Your task to perform on an android device: empty trash in google photos Image 0: 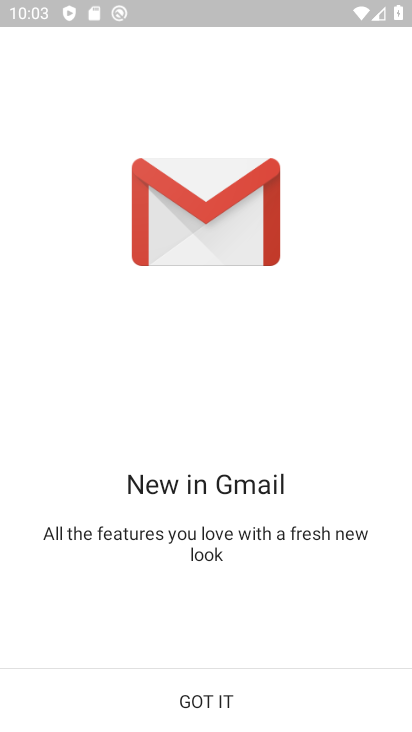
Step 0: click (312, 701)
Your task to perform on an android device: empty trash in google photos Image 1: 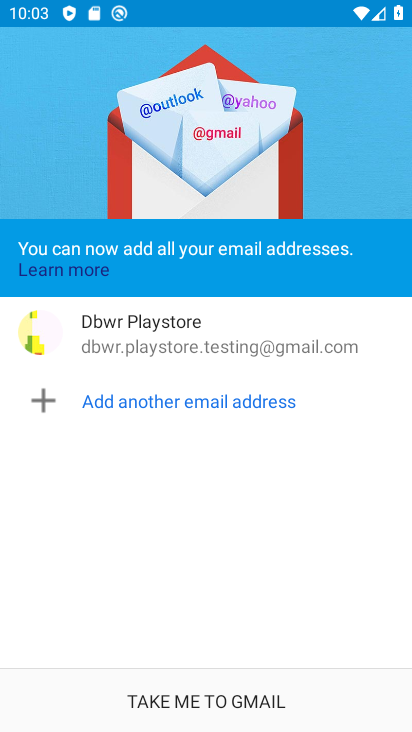
Step 1: click (195, 704)
Your task to perform on an android device: empty trash in google photos Image 2: 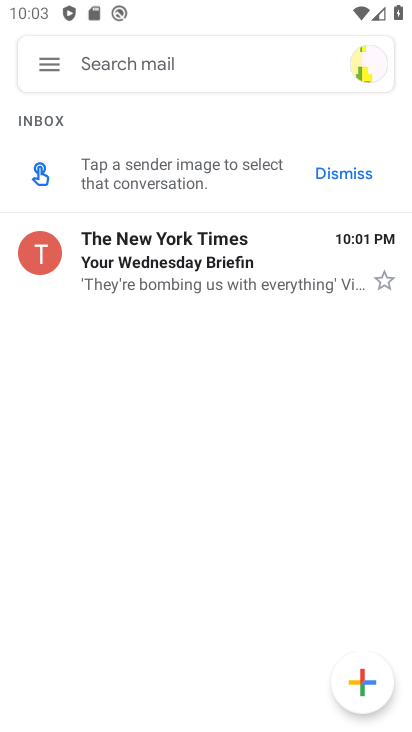
Step 2: press back button
Your task to perform on an android device: empty trash in google photos Image 3: 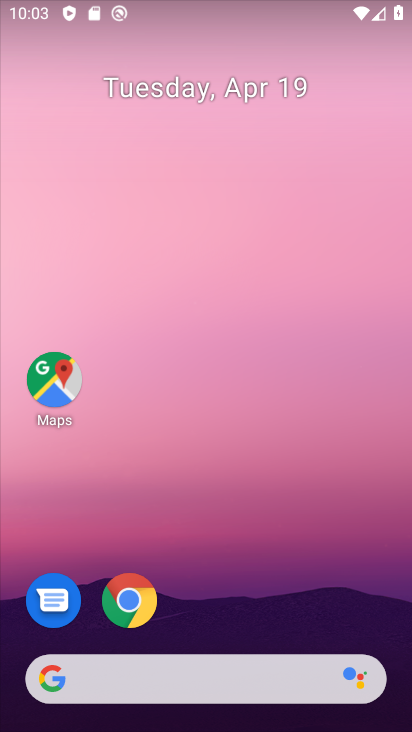
Step 3: drag from (250, 629) to (261, 0)
Your task to perform on an android device: empty trash in google photos Image 4: 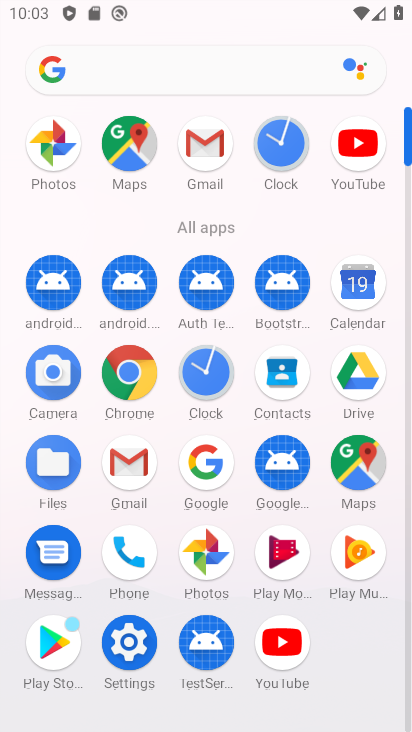
Step 4: click (187, 556)
Your task to perform on an android device: empty trash in google photos Image 5: 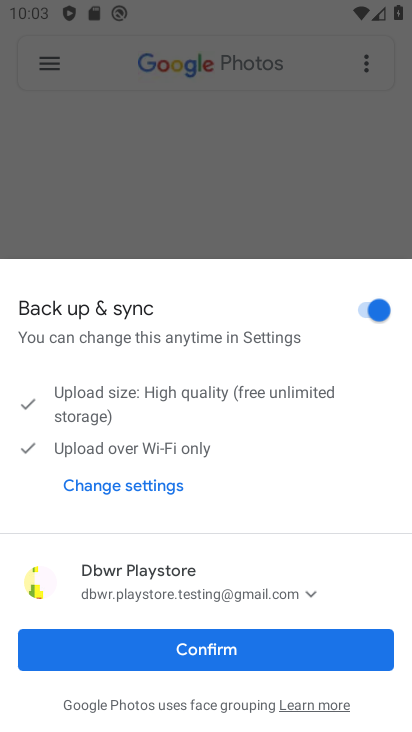
Step 5: click (227, 656)
Your task to perform on an android device: empty trash in google photos Image 6: 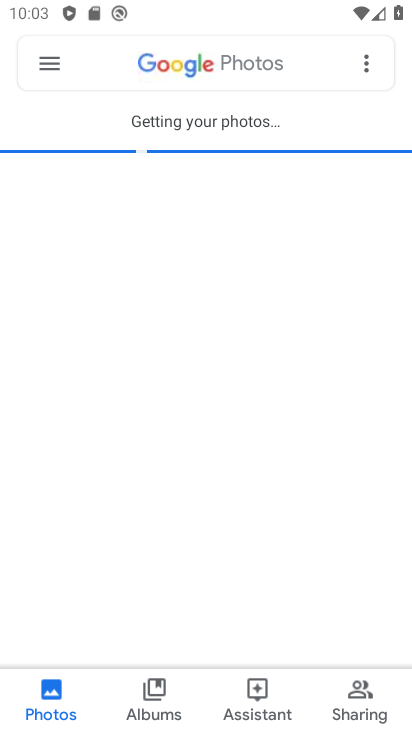
Step 6: click (56, 59)
Your task to perform on an android device: empty trash in google photos Image 7: 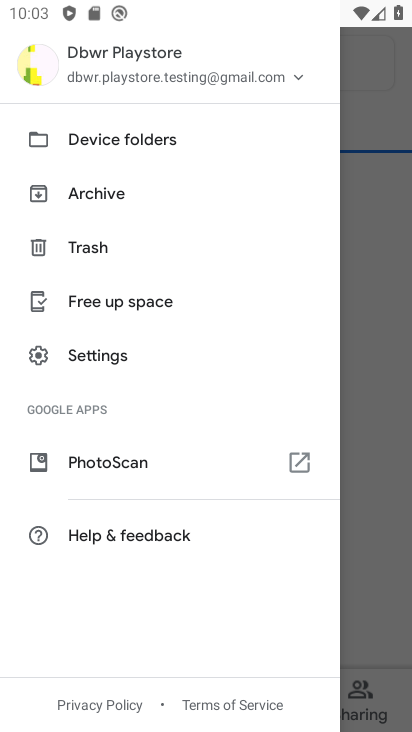
Step 7: click (107, 257)
Your task to perform on an android device: empty trash in google photos Image 8: 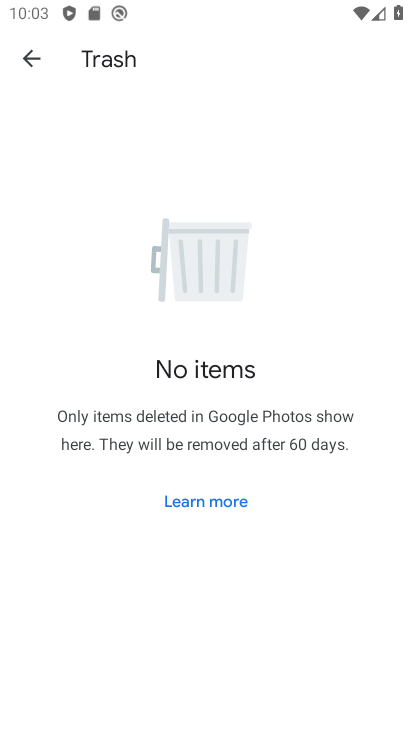
Step 8: task complete